Your task to perform on an android device: toggle wifi Image 0: 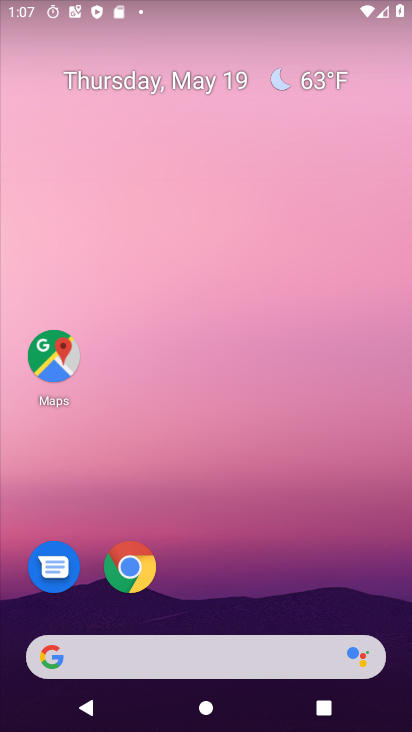
Step 0: press home button
Your task to perform on an android device: toggle wifi Image 1: 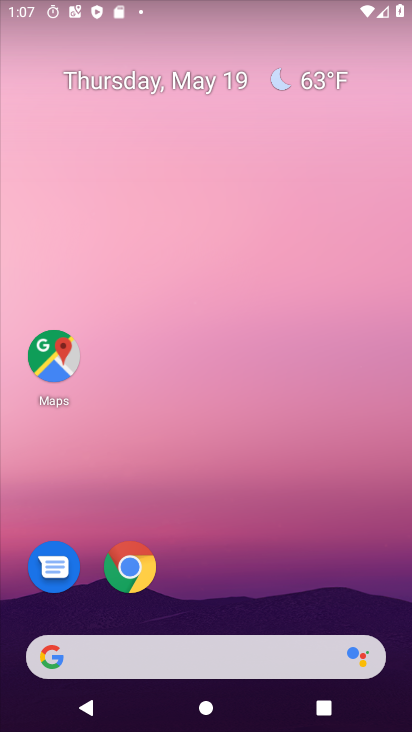
Step 1: drag from (178, 658) to (318, 242)
Your task to perform on an android device: toggle wifi Image 2: 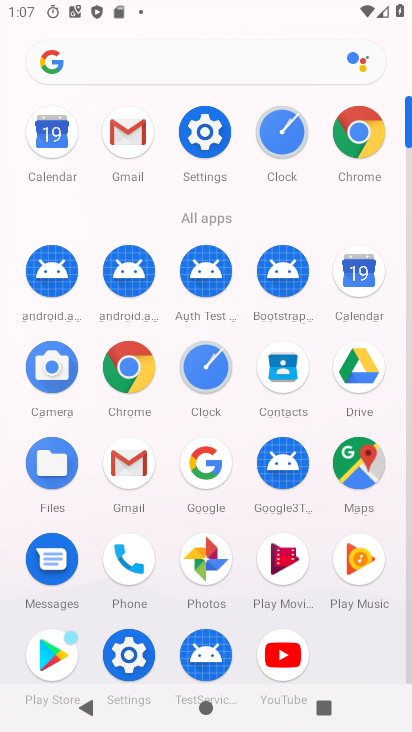
Step 2: click (211, 142)
Your task to perform on an android device: toggle wifi Image 3: 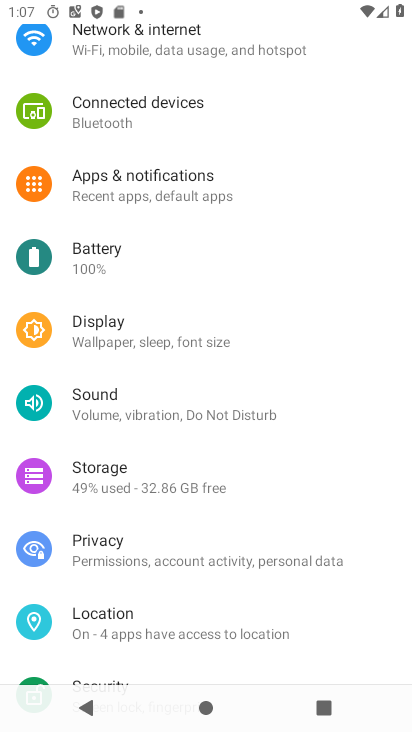
Step 3: drag from (327, 140) to (256, 495)
Your task to perform on an android device: toggle wifi Image 4: 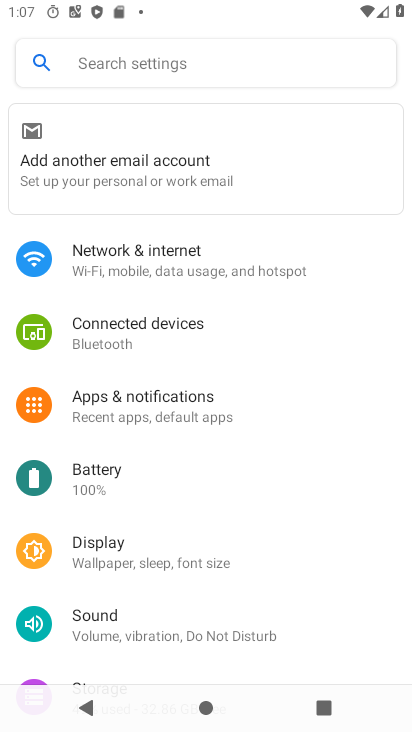
Step 4: click (183, 259)
Your task to perform on an android device: toggle wifi Image 5: 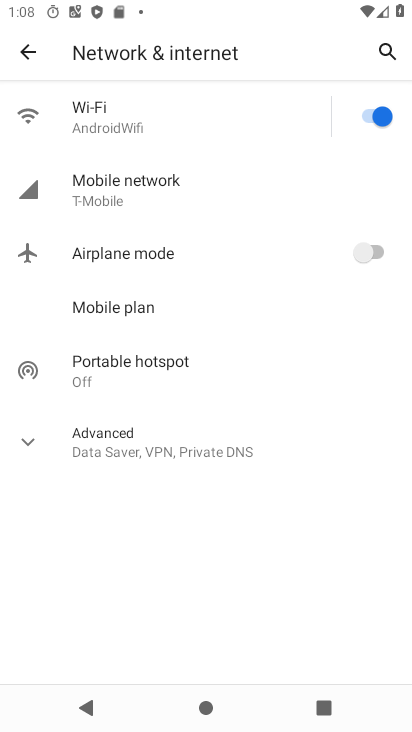
Step 5: click (366, 120)
Your task to perform on an android device: toggle wifi Image 6: 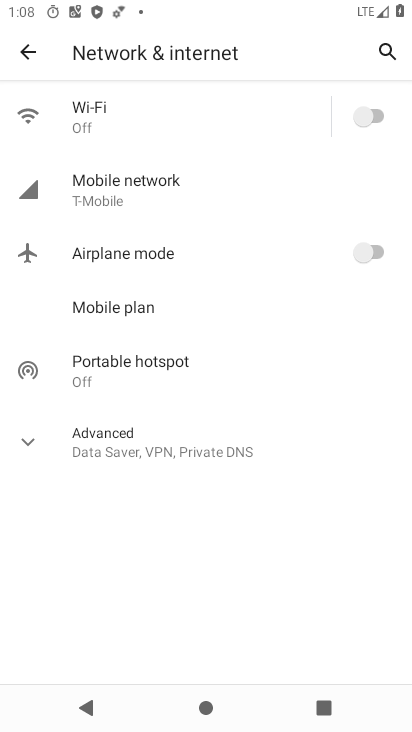
Step 6: task complete